Your task to perform on an android device: open chrome and create a bookmark for the current page Image 0: 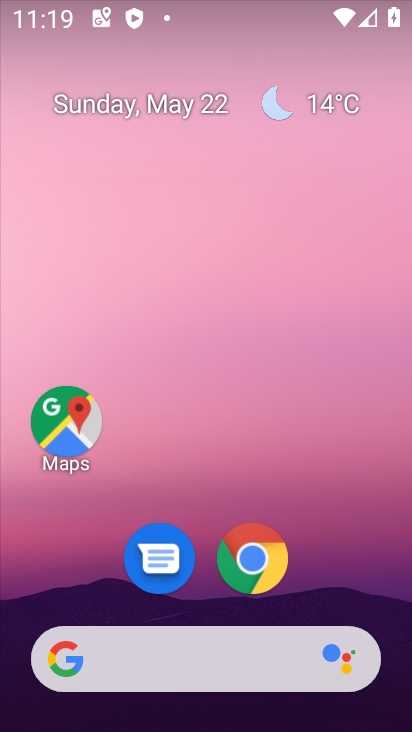
Step 0: click (252, 565)
Your task to perform on an android device: open chrome and create a bookmark for the current page Image 1: 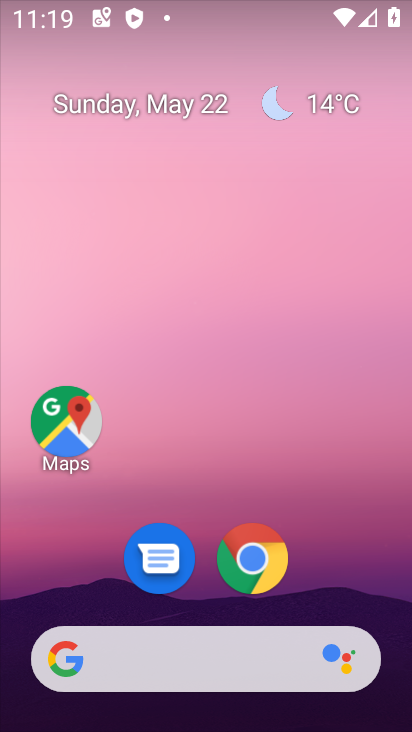
Step 1: click (252, 565)
Your task to perform on an android device: open chrome and create a bookmark for the current page Image 2: 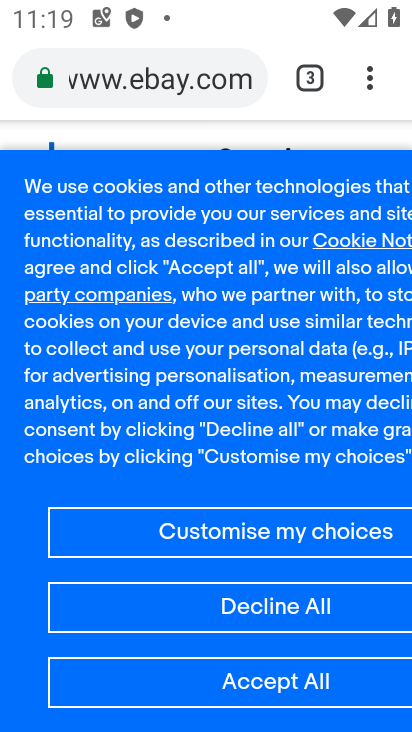
Step 2: click (370, 77)
Your task to perform on an android device: open chrome and create a bookmark for the current page Image 3: 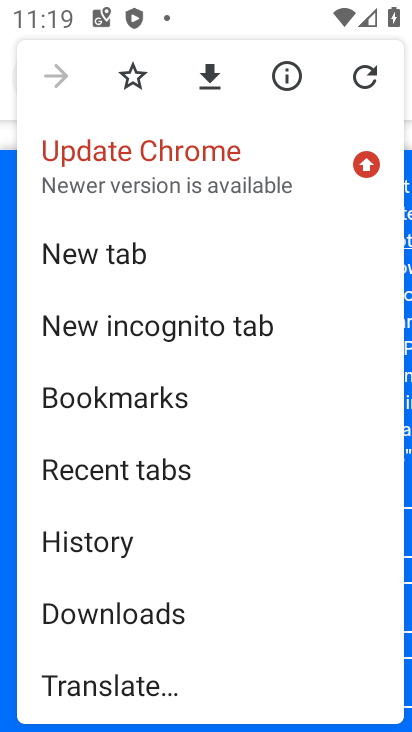
Step 3: click (133, 73)
Your task to perform on an android device: open chrome and create a bookmark for the current page Image 4: 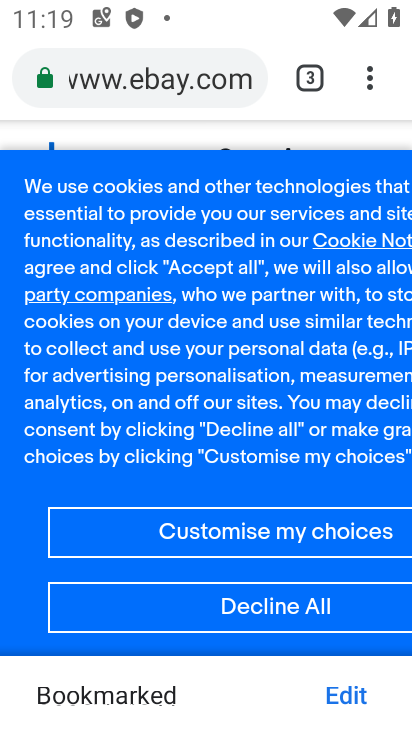
Step 4: task complete